Your task to perform on an android device: Go to notification settings Image 0: 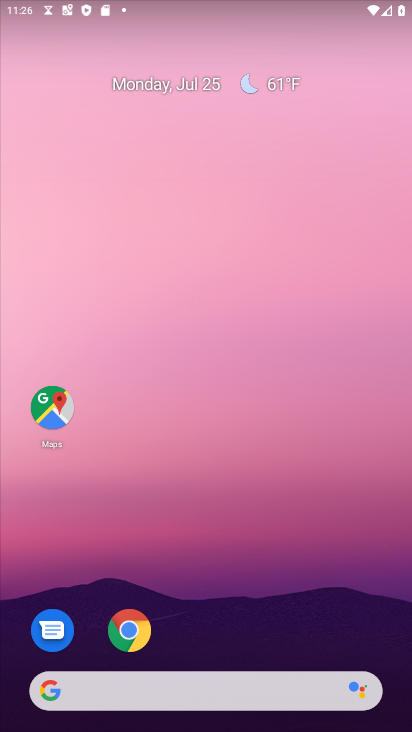
Step 0: drag from (250, 632) to (195, 148)
Your task to perform on an android device: Go to notification settings Image 1: 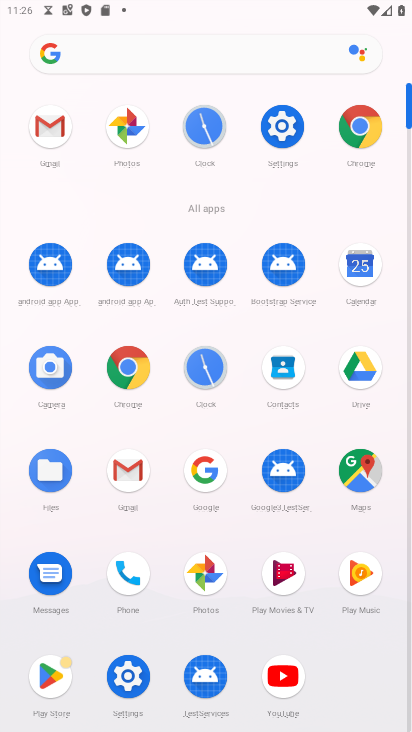
Step 1: click (281, 101)
Your task to perform on an android device: Go to notification settings Image 2: 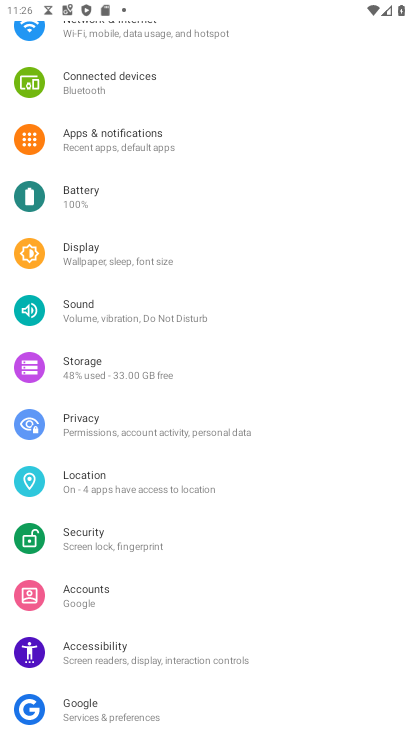
Step 2: click (141, 147)
Your task to perform on an android device: Go to notification settings Image 3: 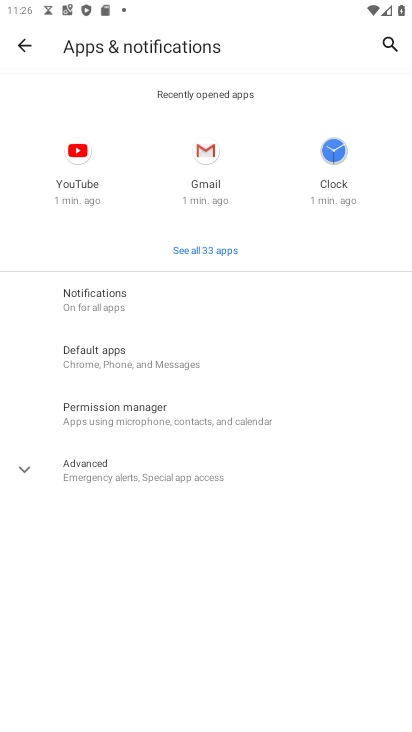
Step 3: click (118, 288)
Your task to perform on an android device: Go to notification settings Image 4: 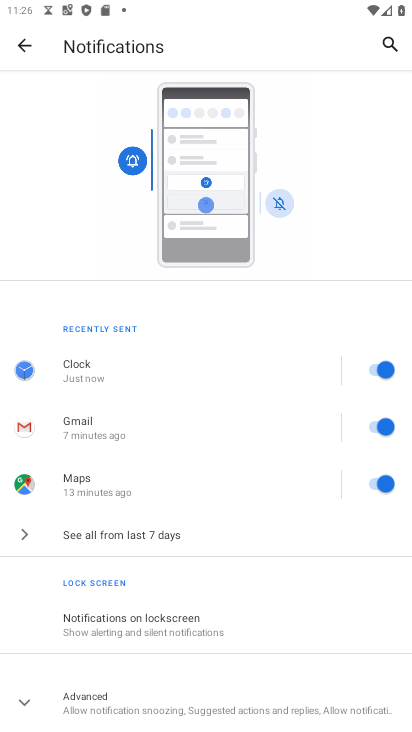
Step 4: task complete